Your task to perform on an android device: Add usb-a to the cart on newegg.com Image 0: 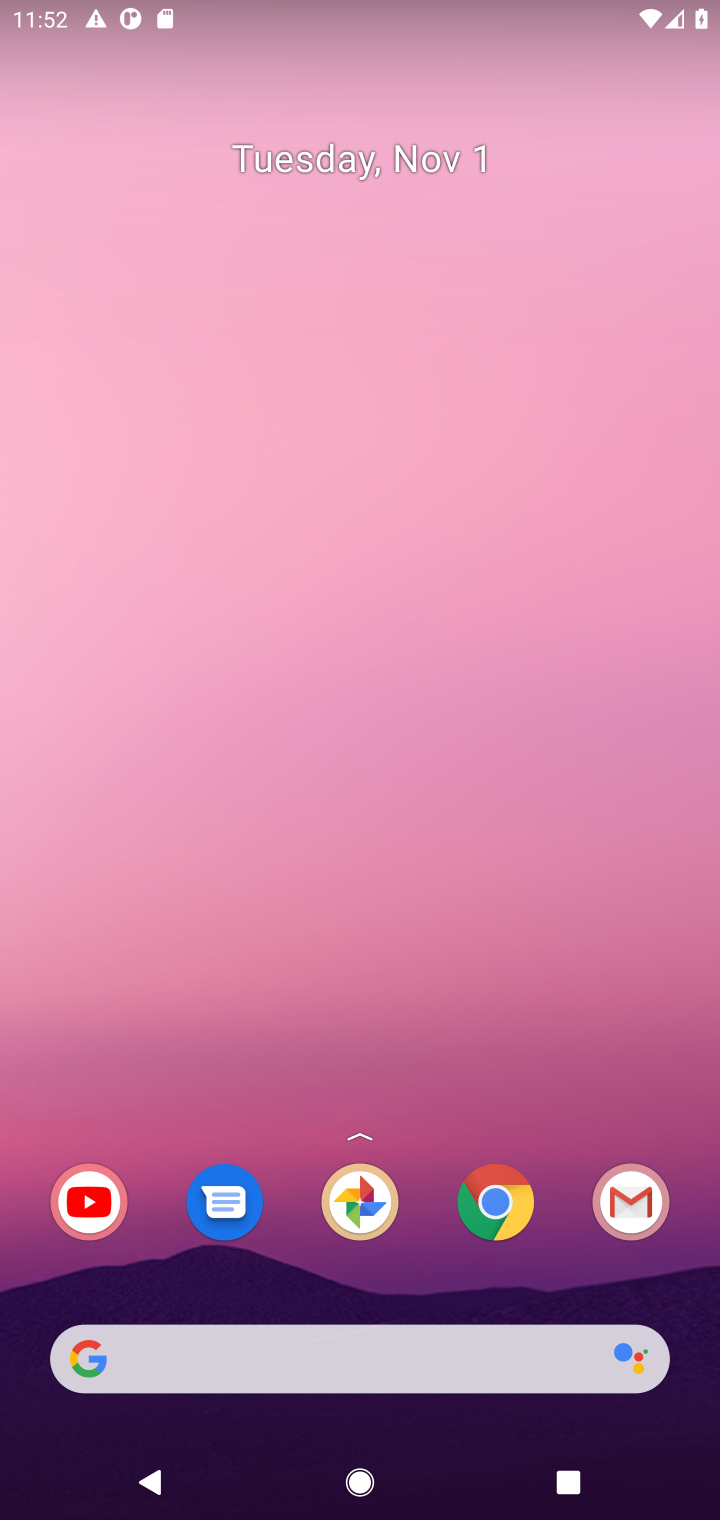
Step 0: click (489, 1208)
Your task to perform on an android device: Add usb-a to the cart on newegg.com Image 1: 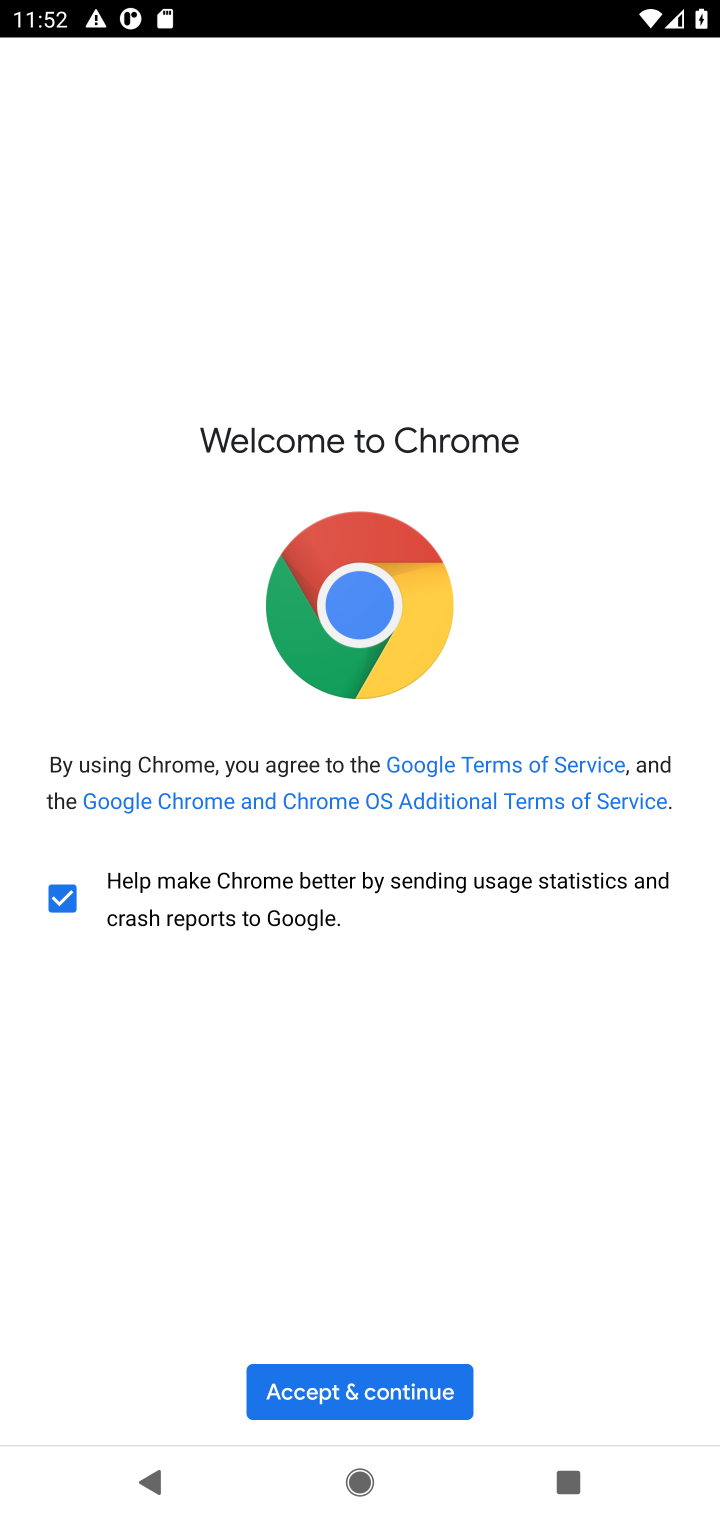
Step 1: click (409, 1387)
Your task to perform on an android device: Add usb-a to the cart on newegg.com Image 2: 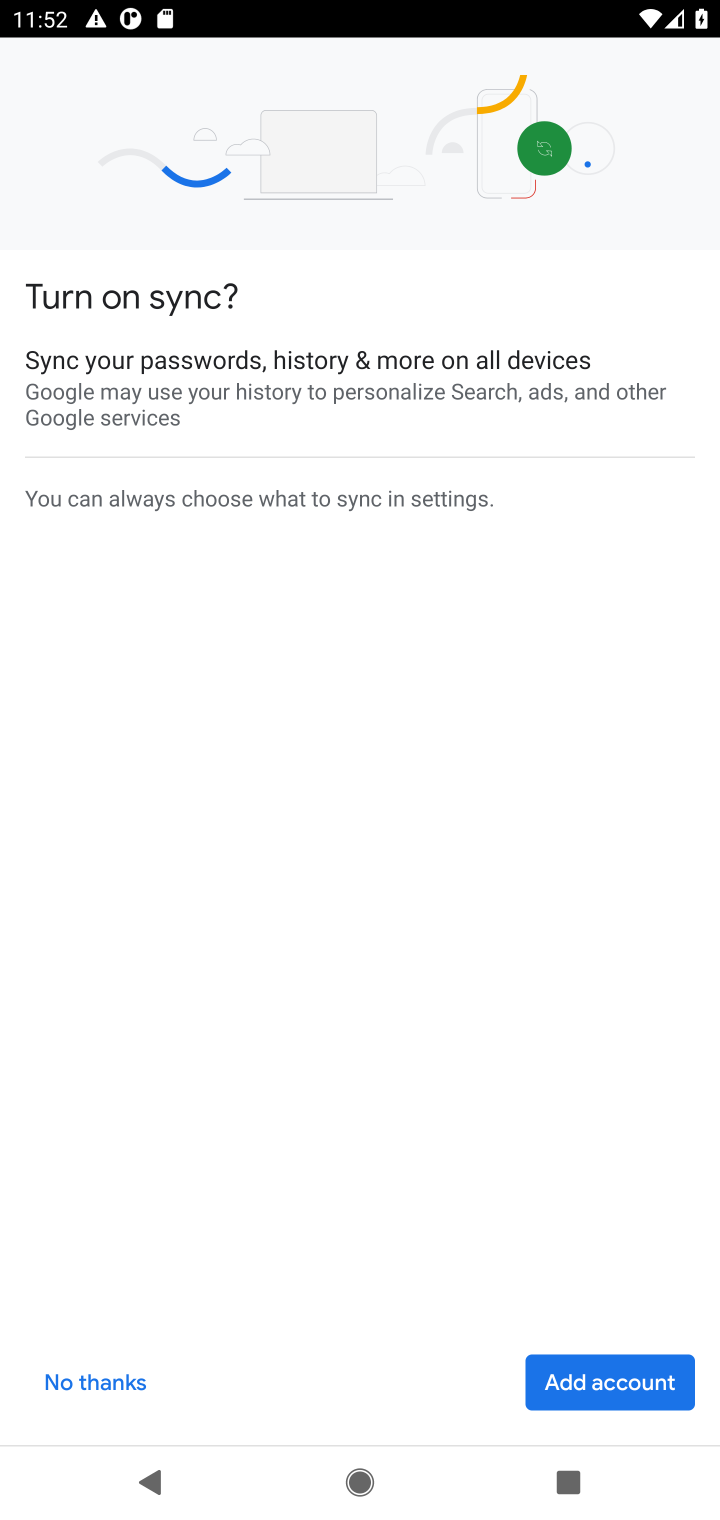
Step 2: click (80, 1379)
Your task to perform on an android device: Add usb-a to the cart on newegg.com Image 3: 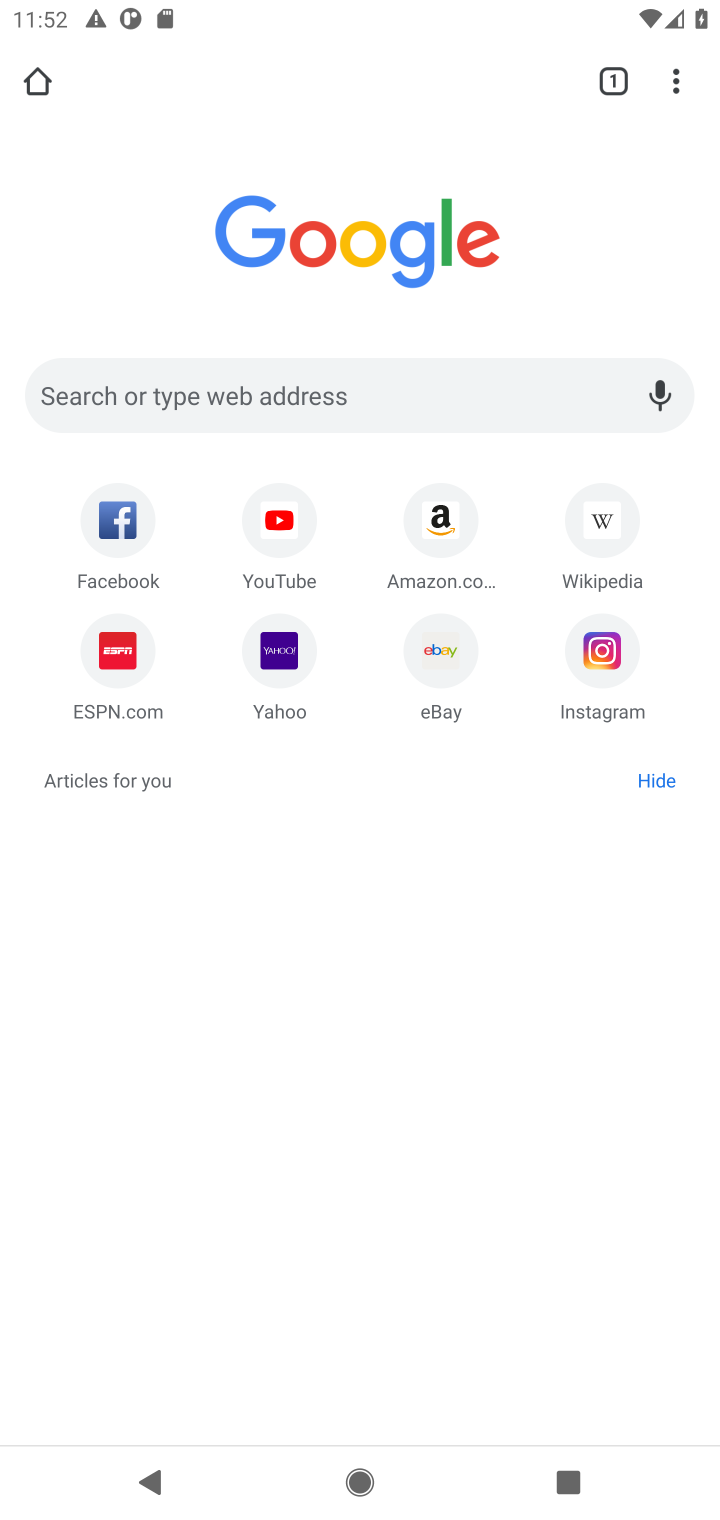
Step 3: click (362, 383)
Your task to perform on an android device: Add usb-a to the cart on newegg.com Image 4: 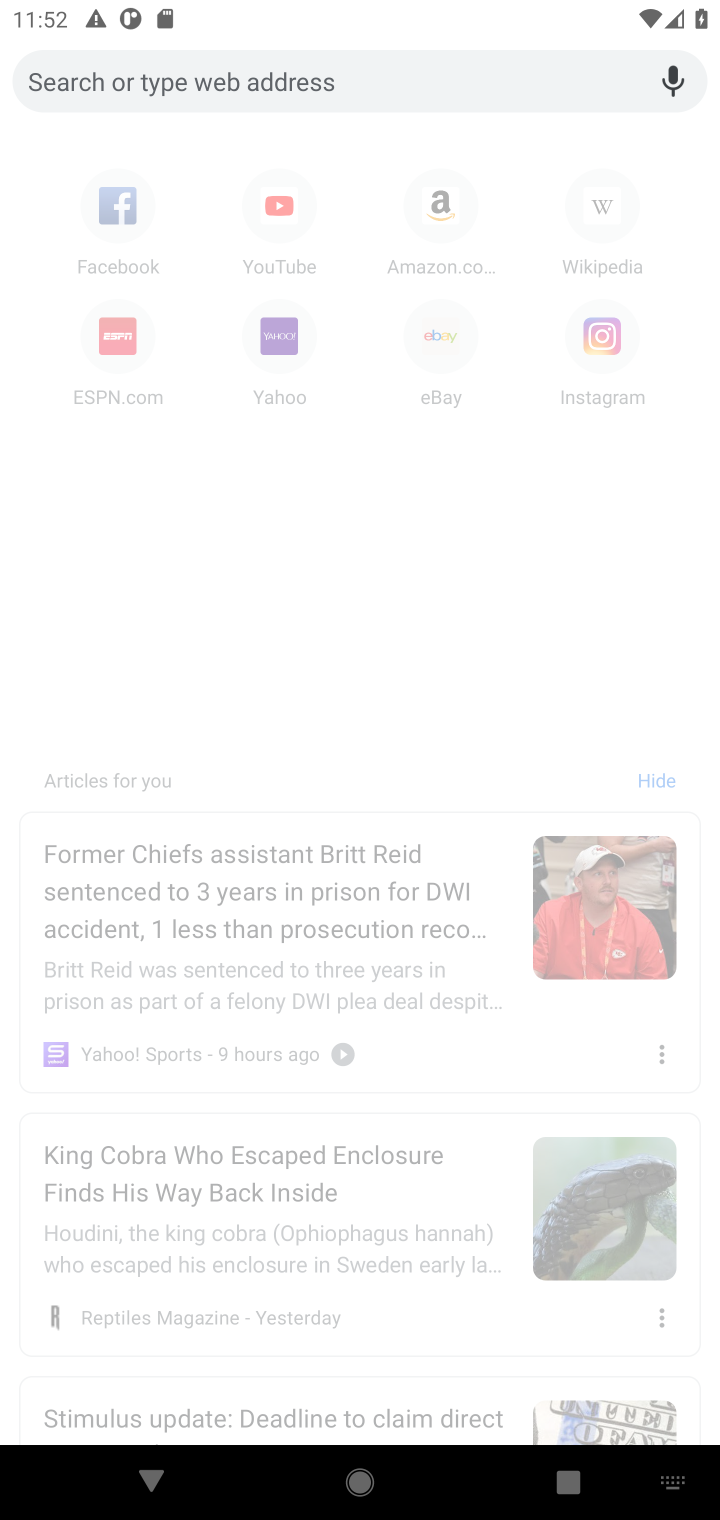
Step 4: type "newegg.com"
Your task to perform on an android device: Add usb-a to the cart on newegg.com Image 5: 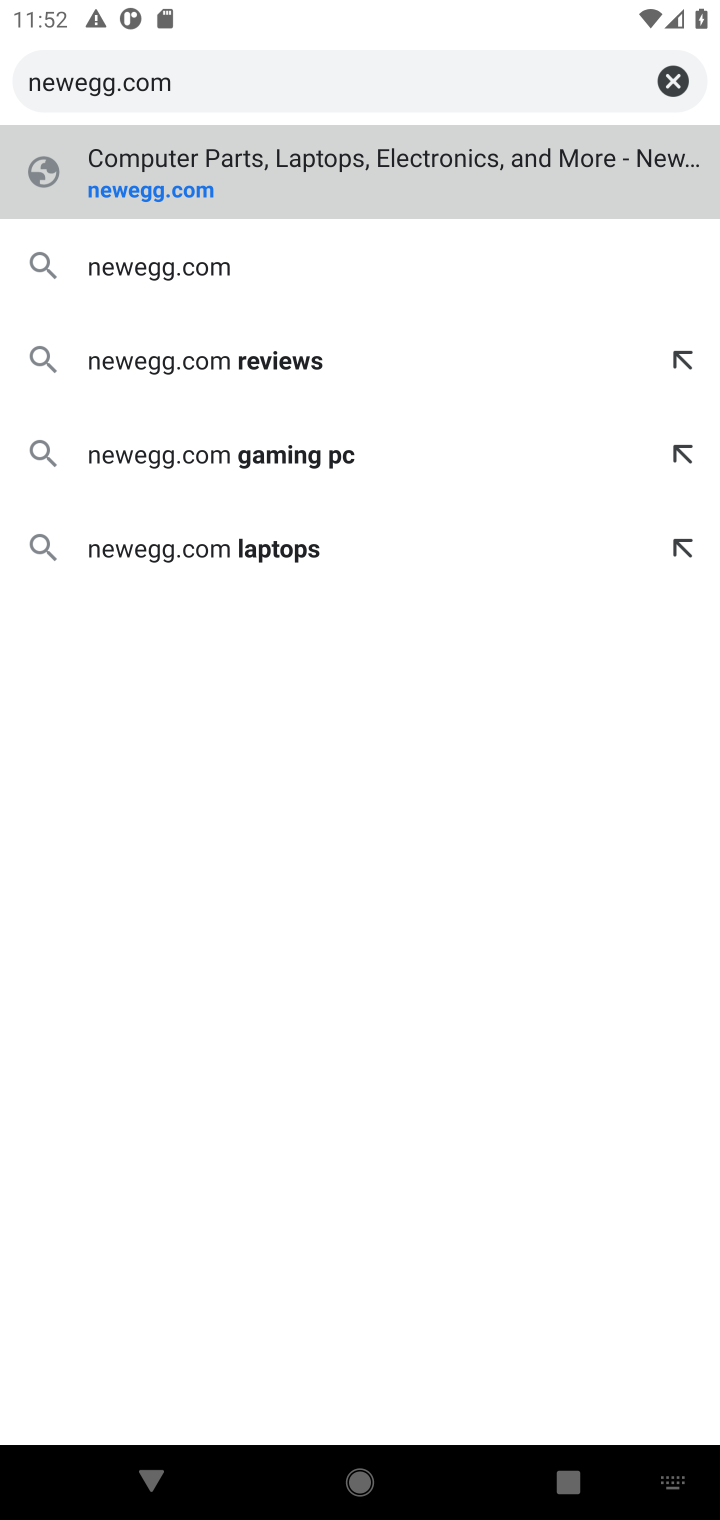
Step 5: click (398, 198)
Your task to perform on an android device: Add usb-a to the cart on newegg.com Image 6: 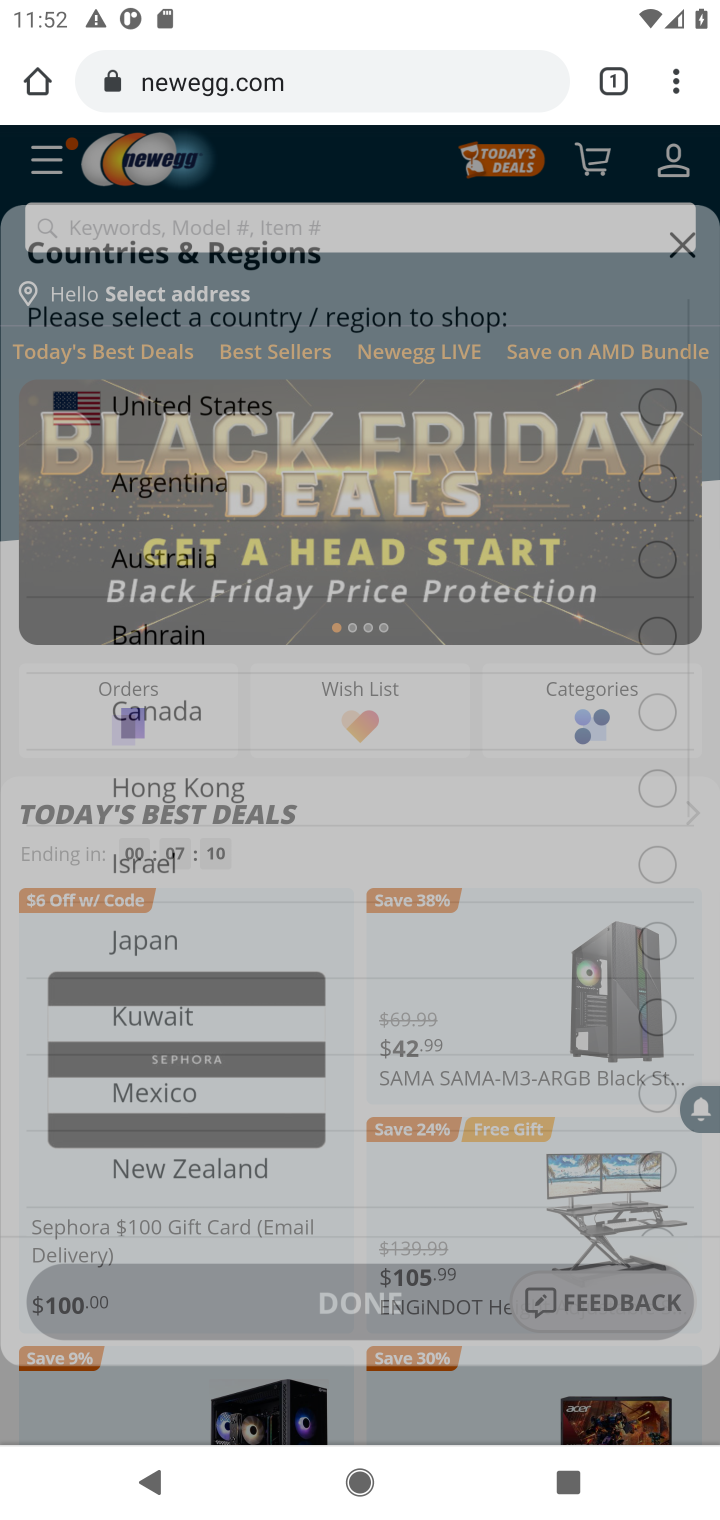
Step 6: click (329, 235)
Your task to perform on an android device: Add usb-a to the cart on newegg.com Image 7: 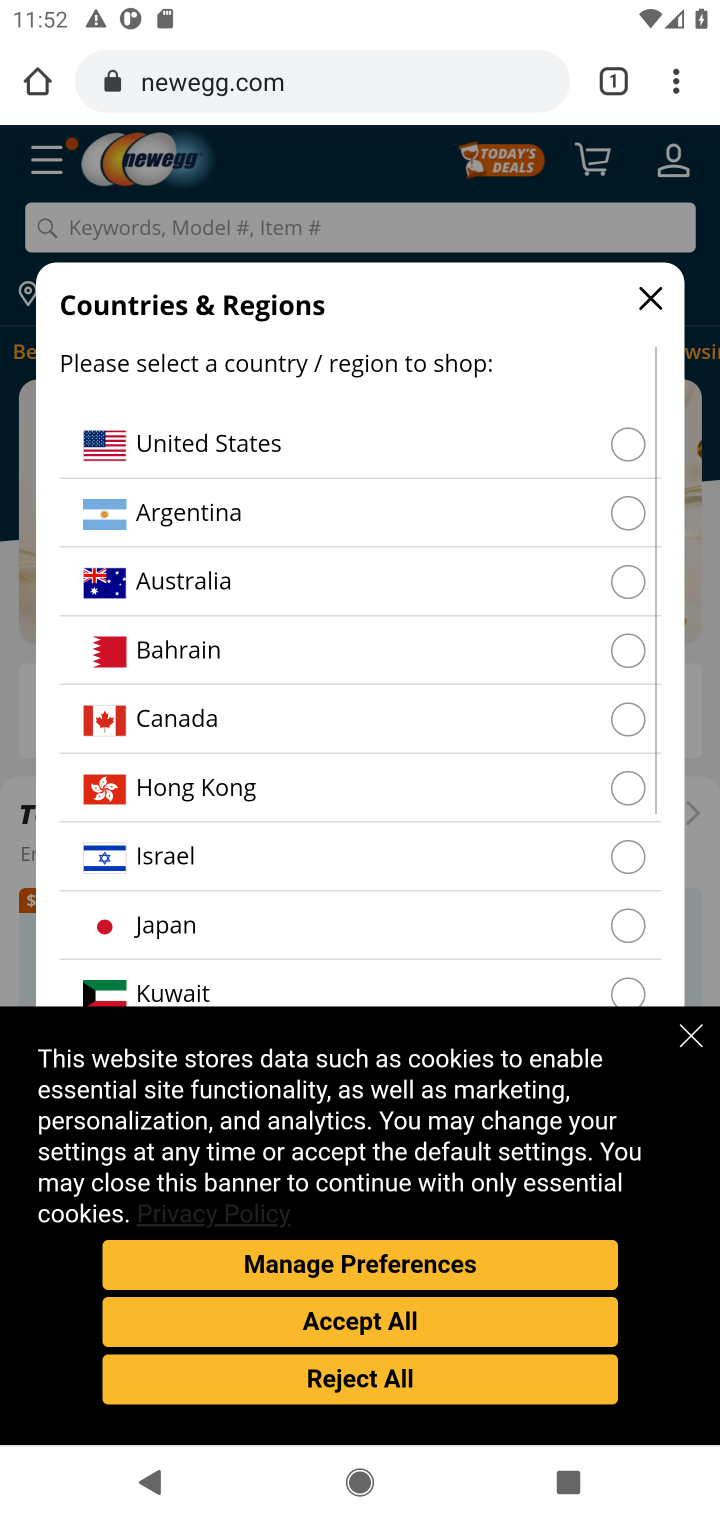
Step 7: click (342, 430)
Your task to perform on an android device: Add usb-a to the cart on newegg.com Image 8: 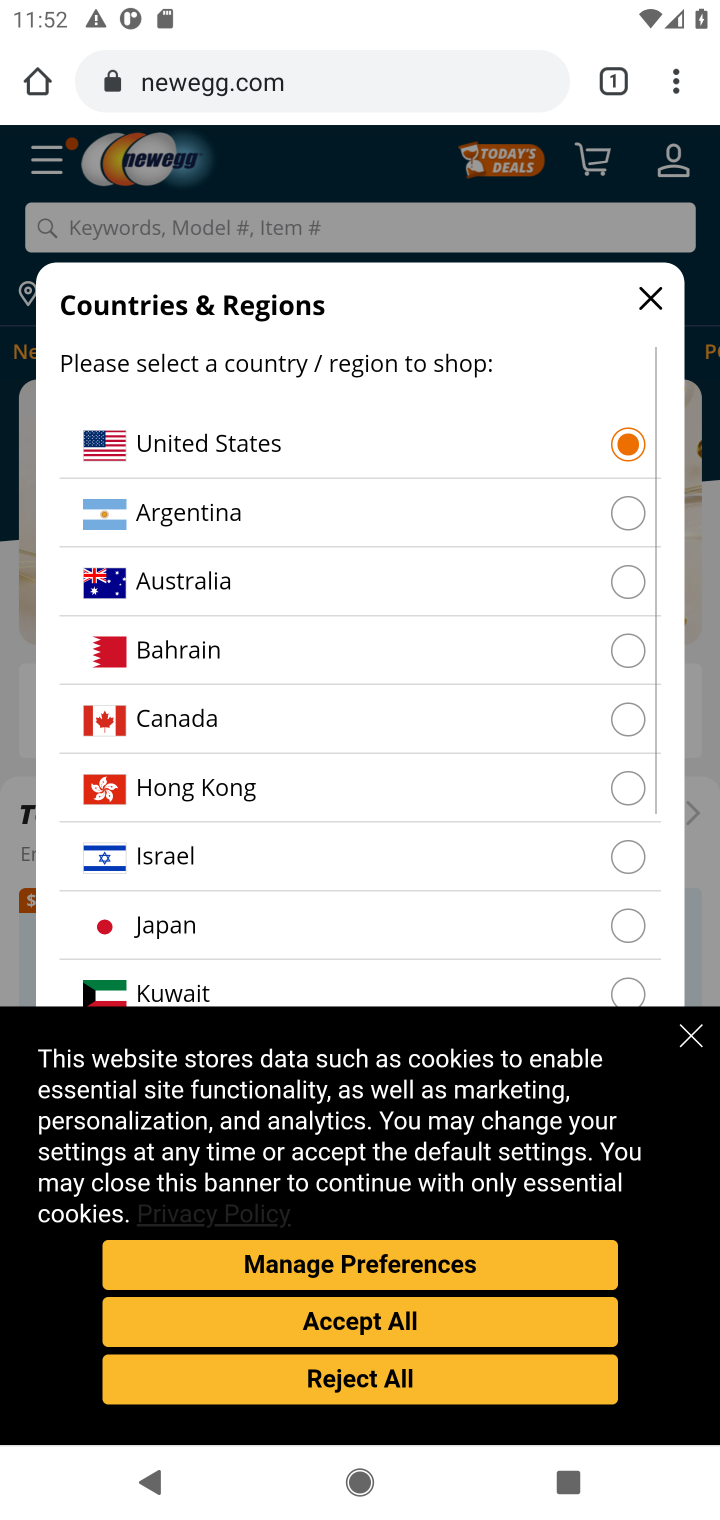
Step 8: drag from (502, 995) to (412, 173)
Your task to perform on an android device: Add usb-a to the cart on newegg.com Image 9: 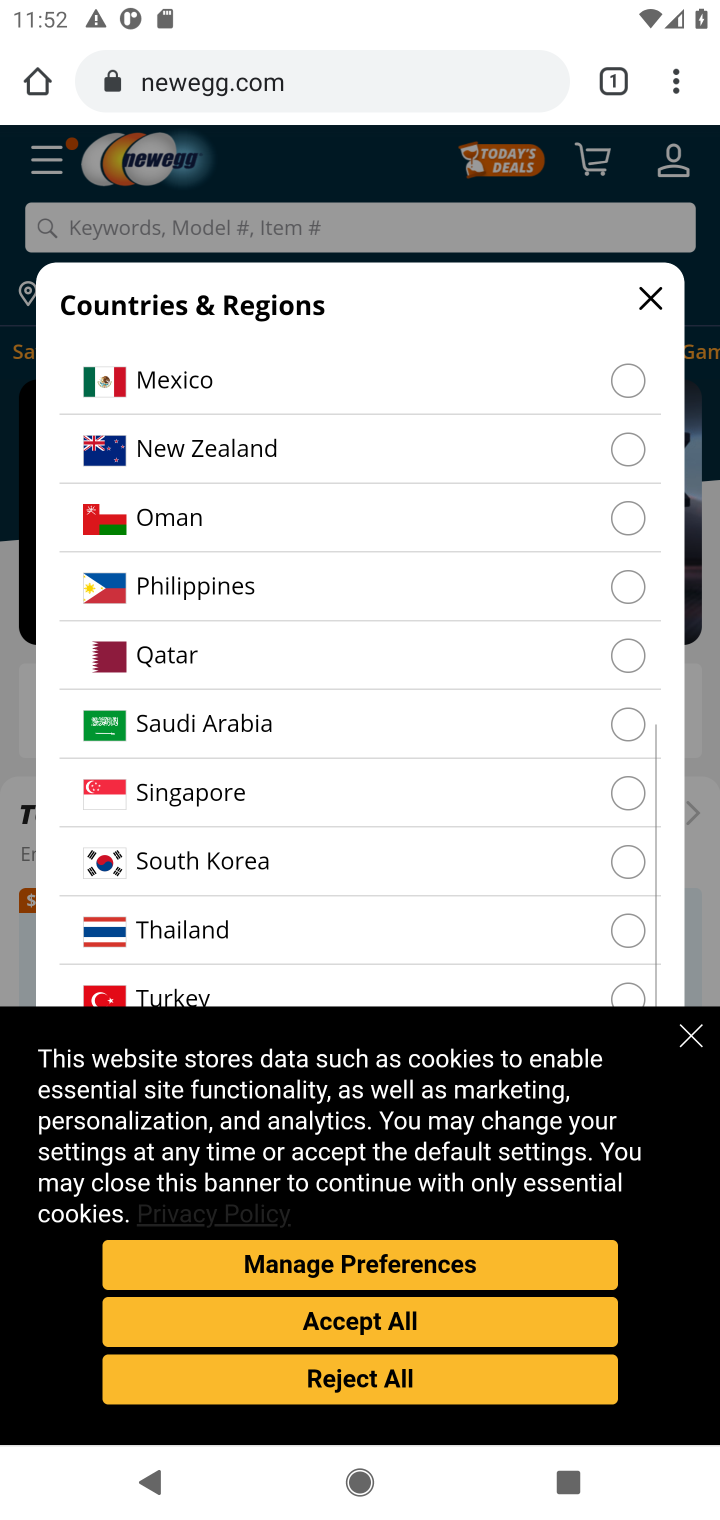
Step 9: click (640, 302)
Your task to perform on an android device: Add usb-a to the cart on newegg.com Image 10: 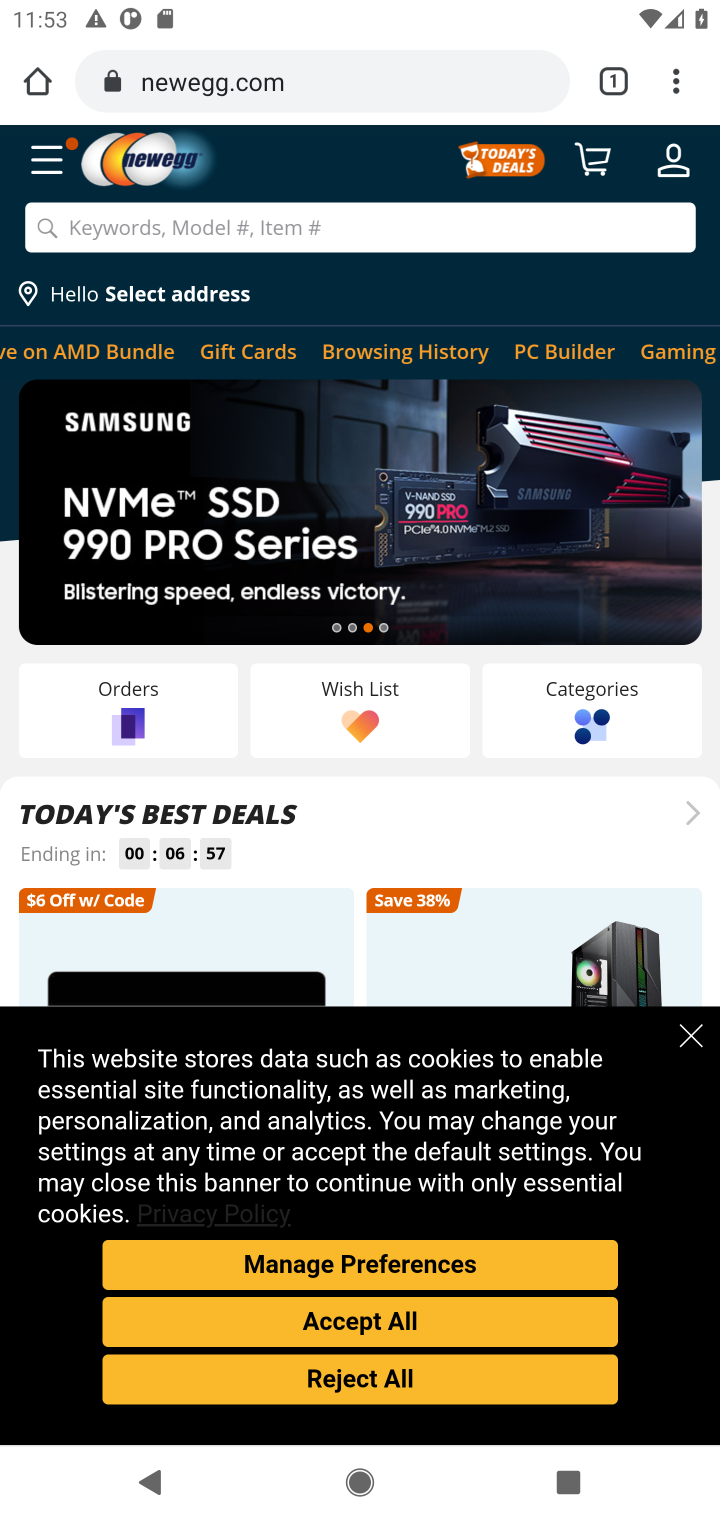
Step 10: click (308, 226)
Your task to perform on an android device: Add usb-a to the cart on newegg.com Image 11: 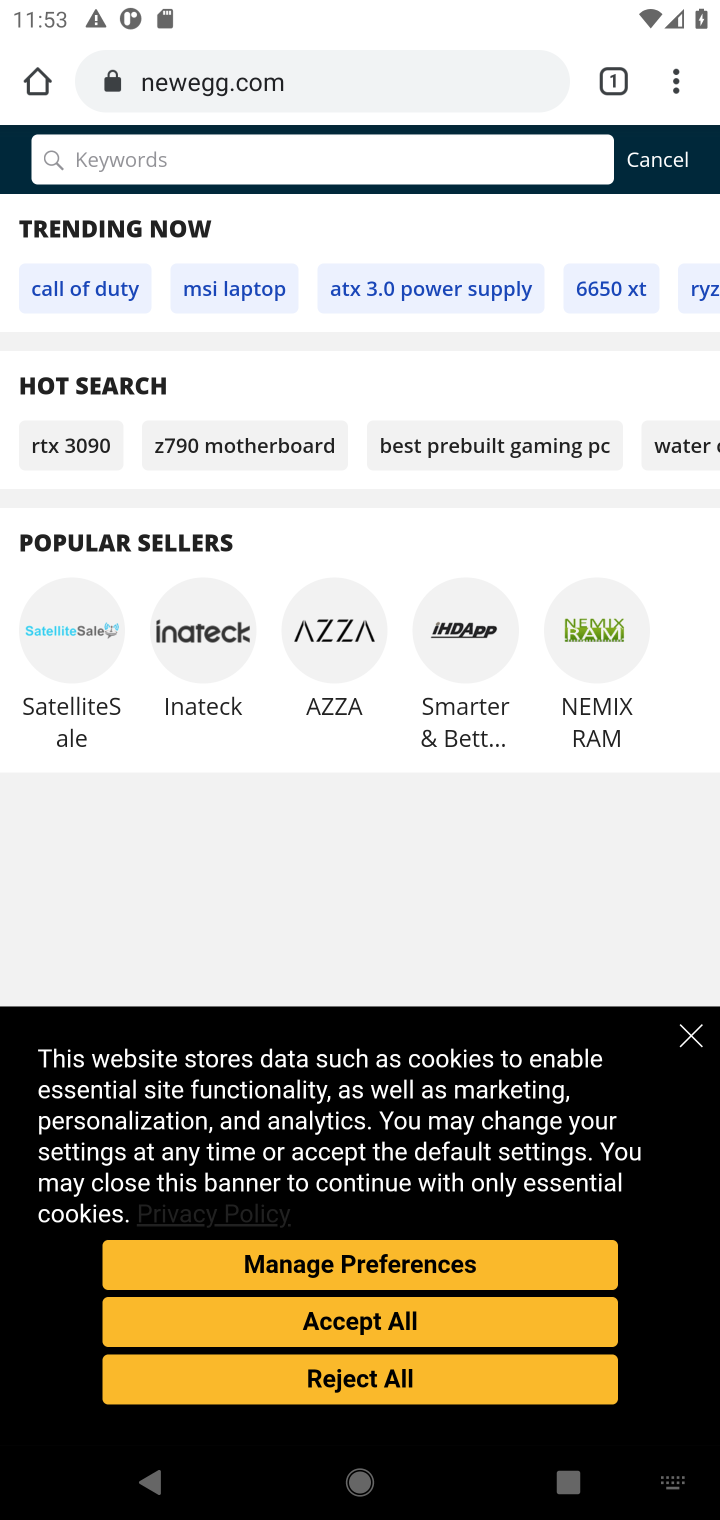
Step 11: click (193, 166)
Your task to perform on an android device: Add usb-a to the cart on newegg.com Image 12: 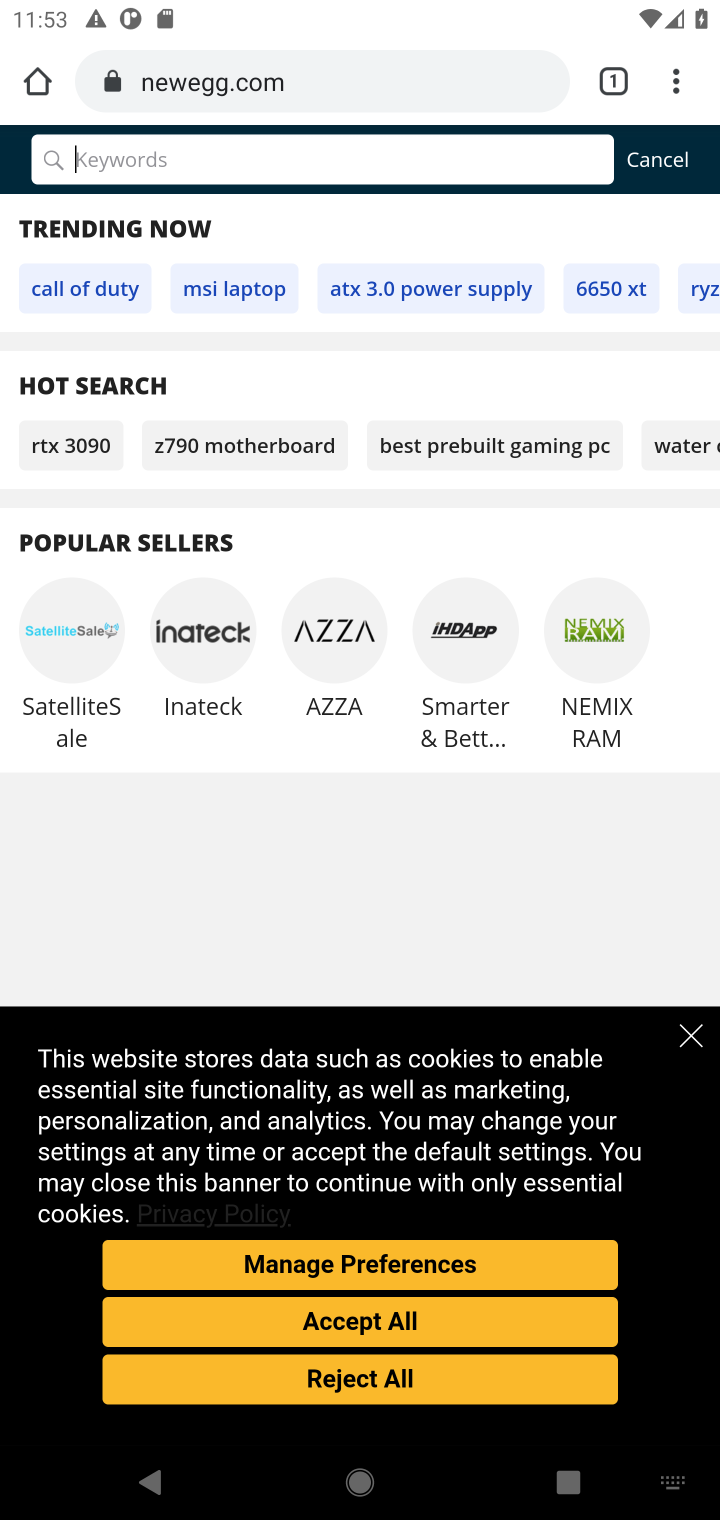
Step 12: type "usb-a "
Your task to perform on an android device: Add usb-a to the cart on newegg.com Image 13: 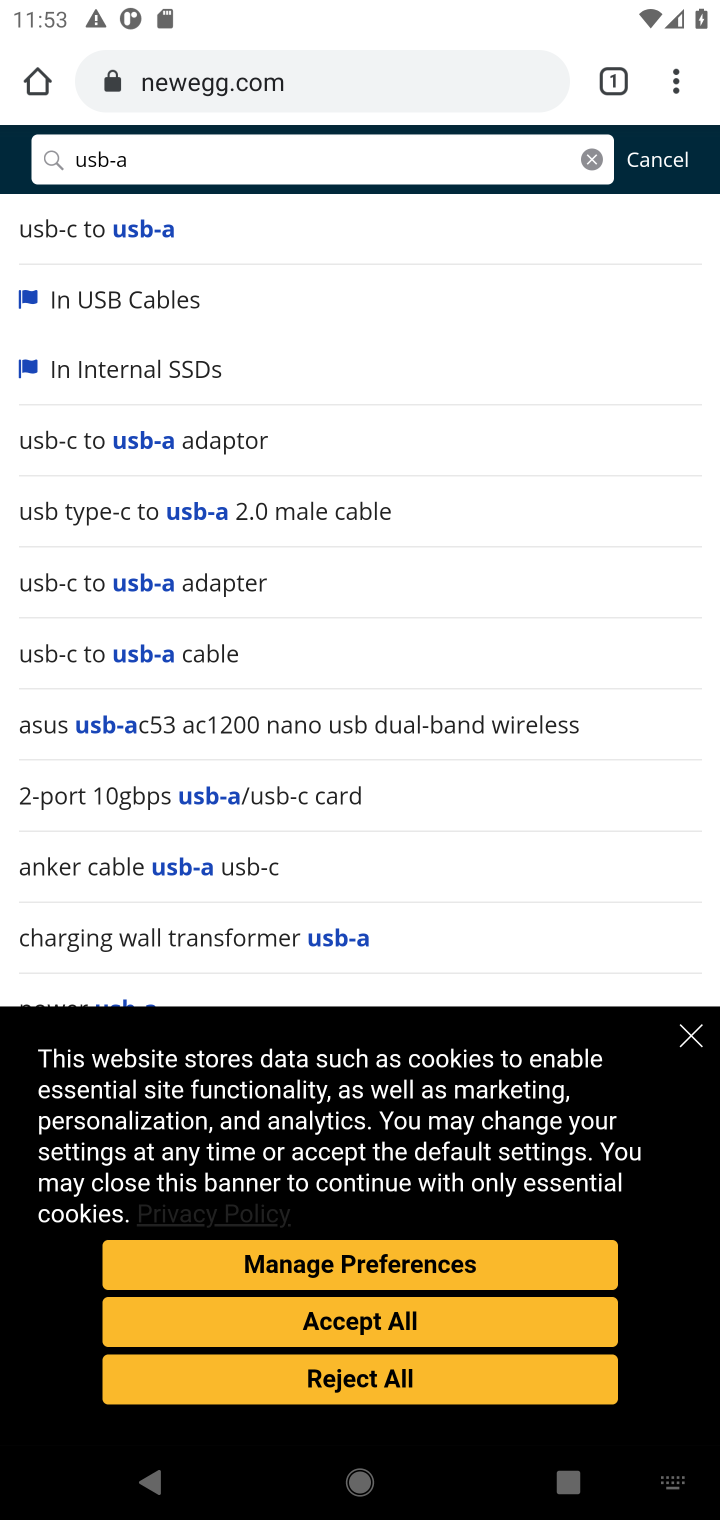
Step 13: press enter
Your task to perform on an android device: Add usb-a to the cart on newegg.com Image 14: 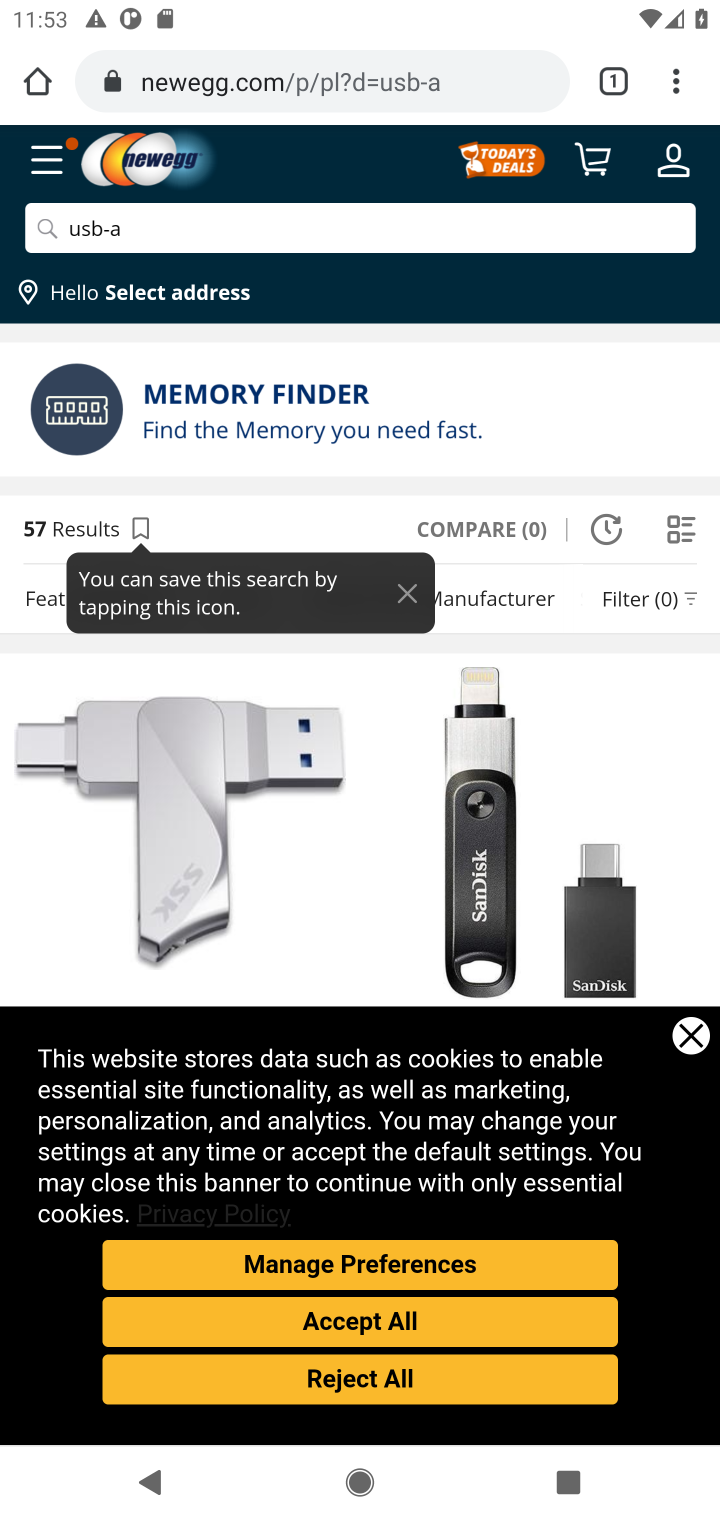
Step 14: task complete